Your task to perform on an android device: Open the calendar app, open the side menu, and click the "Day" option Image 0: 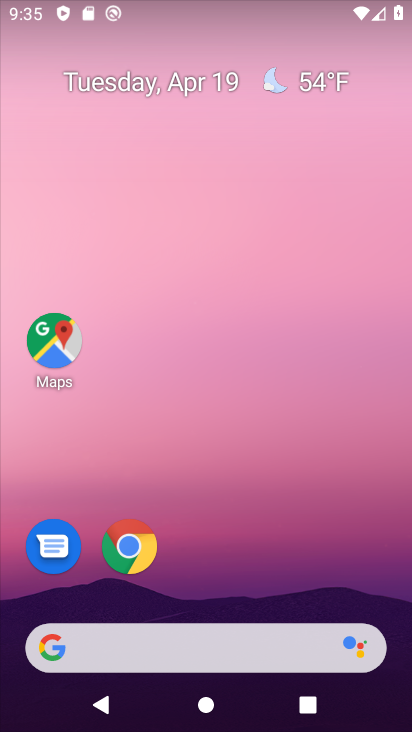
Step 0: drag from (234, 635) to (237, 162)
Your task to perform on an android device: Open the calendar app, open the side menu, and click the "Day" option Image 1: 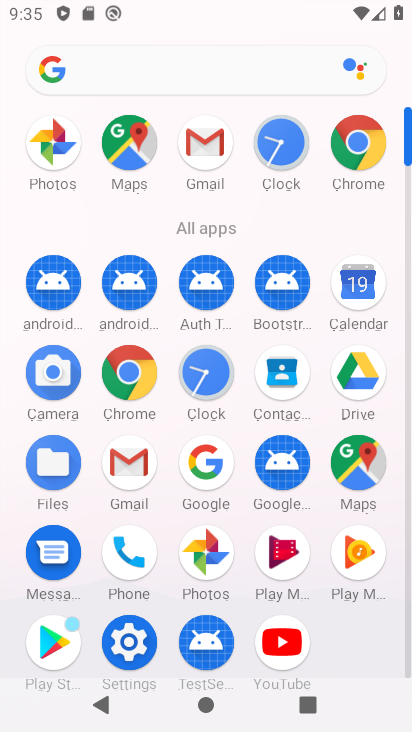
Step 1: click (363, 300)
Your task to perform on an android device: Open the calendar app, open the side menu, and click the "Day" option Image 2: 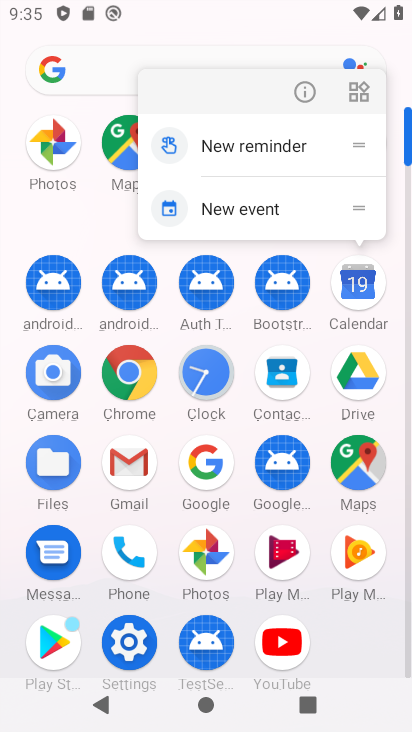
Step 2: click (361, 300)
Your task to perform on an android device: Open the calendar app, open the side menu, and click the "Day" option Image 3: 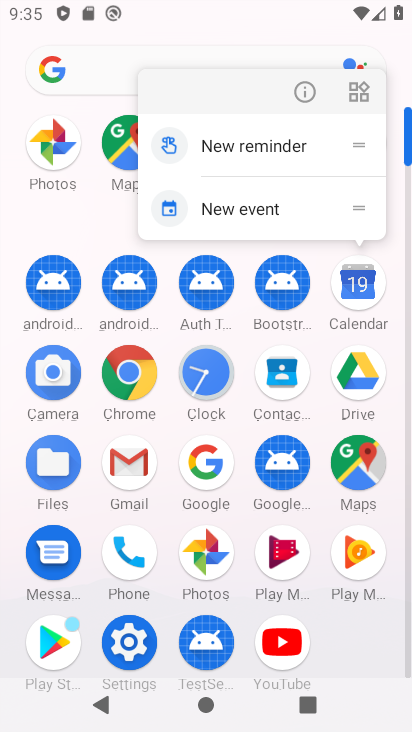
Step 3: click (361, 300)
Your task to perform on an android device: Open the calendar app, open the side menu, and click the "Day" option Image 4: 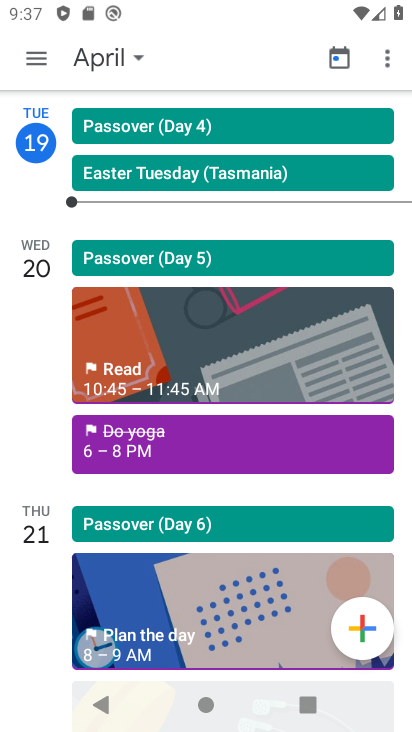
Step 4: click (25, 60)
Your task to perform on an android device: Open the calendar app, open the side menu, and click the "Day" option Image 5: 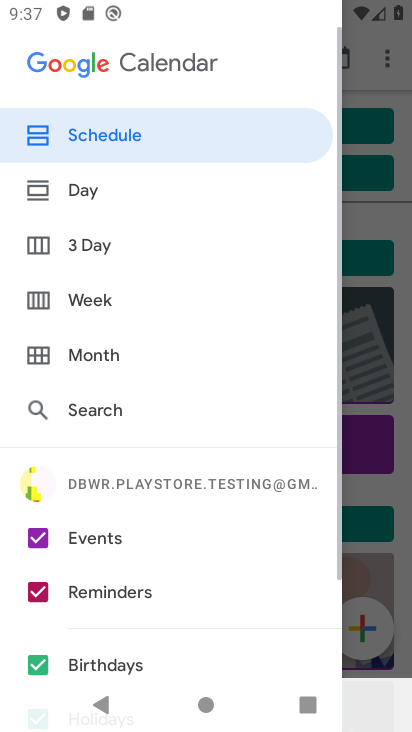
Step 5: click (80, 199)
Your task to perform on an android device: Open the calendar app, open the side menu, and click the "Day" option Image 6: 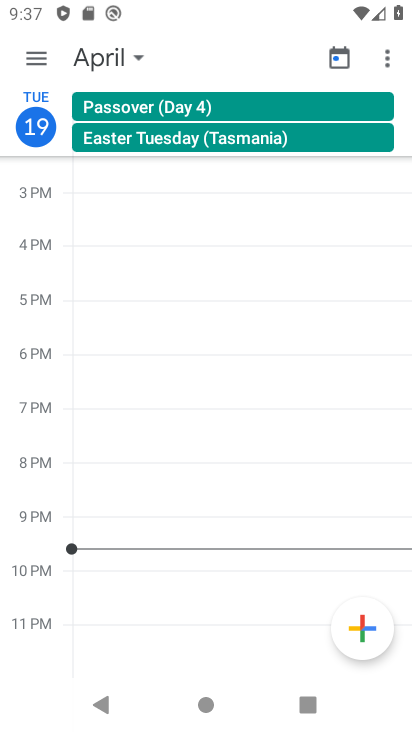
Step 6: click (41, 57)
Your task to perform on an android device: Open the calendar app, open the side menu, and click the "Day" option Image 7: 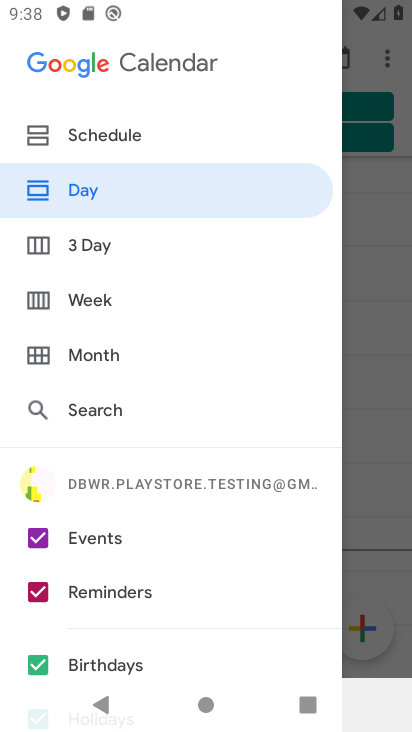
Step 7: task complete